Your task to perform on an android device: check out phone information Image 0: 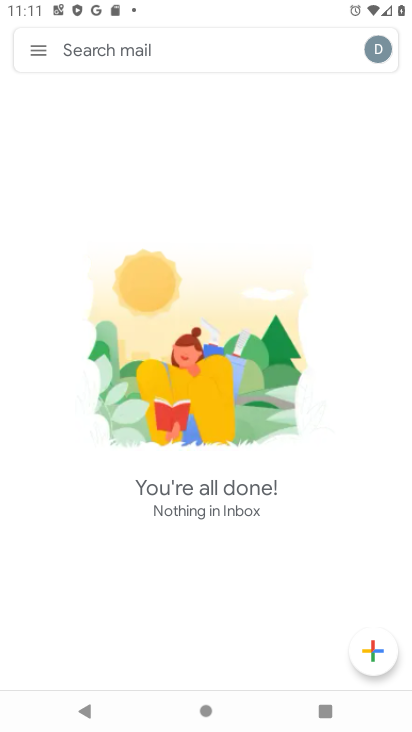
Step 0: press home button
Your task to perform on an android device: check out phone information Image 1: 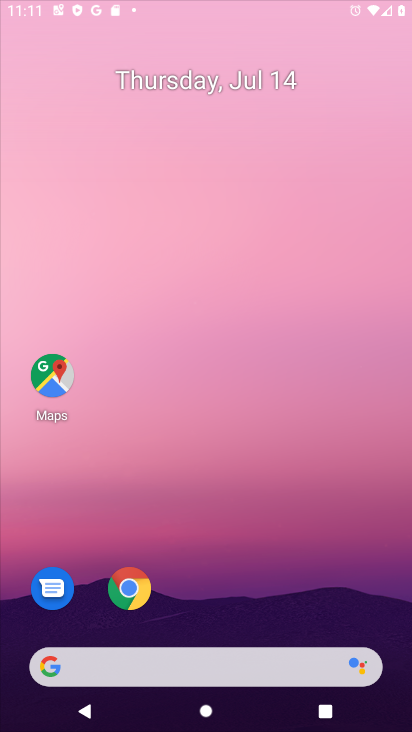
Step 1: drag from (259, 690) to (378, 87)
Your task to perform on an android device: check out phone information Image 2: 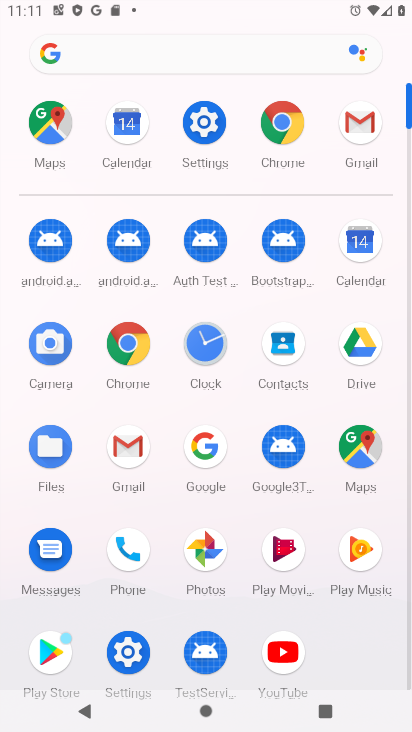
Step 2: click (133, 564)
Your task to perform on an android device: check out phone information Image 3: 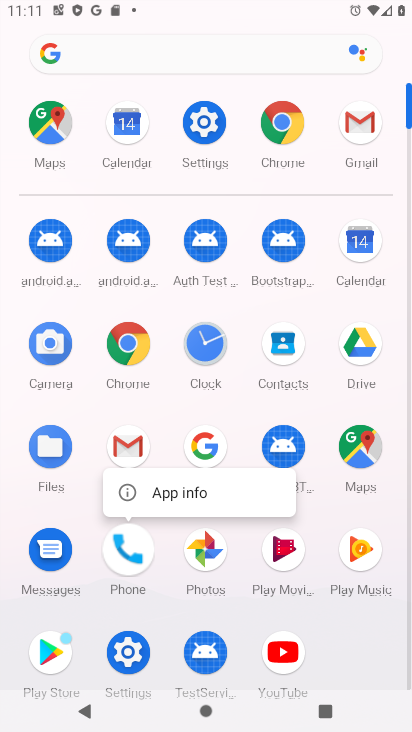
Step 3: click (178, 453)
Your task to perform on an android device: check out phone information Image 4: 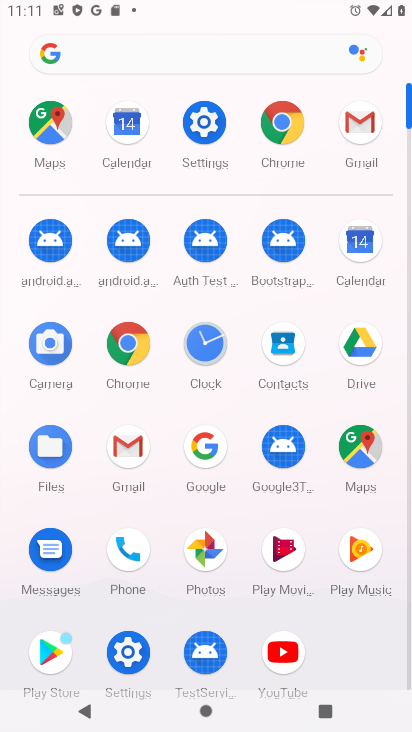
Step 4: click (107, 548)
Your task to perform on an android device: check out phone information Image 5: 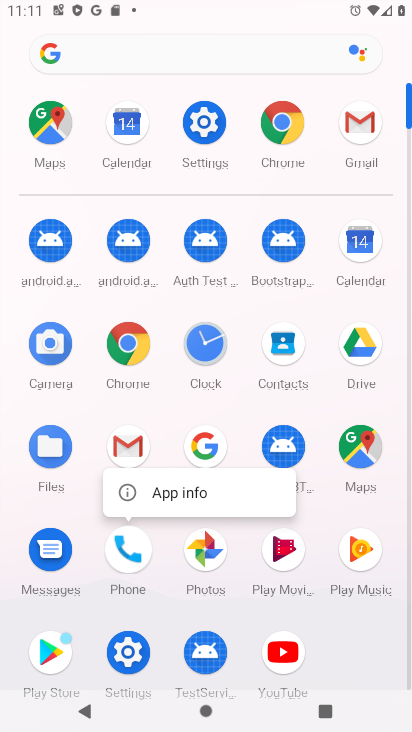
Step 5: click (146, 505)
Your task to perform on an android device: check out phone information Image 6: 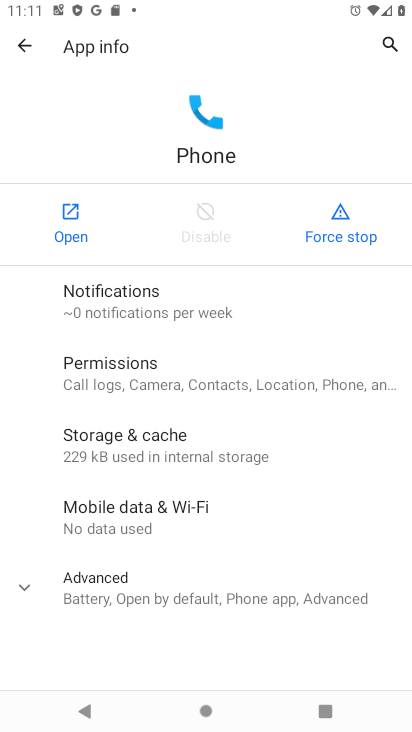
Step 6: task complete